Your task to perform on an android device: change the clock display to show seconds Image 0: 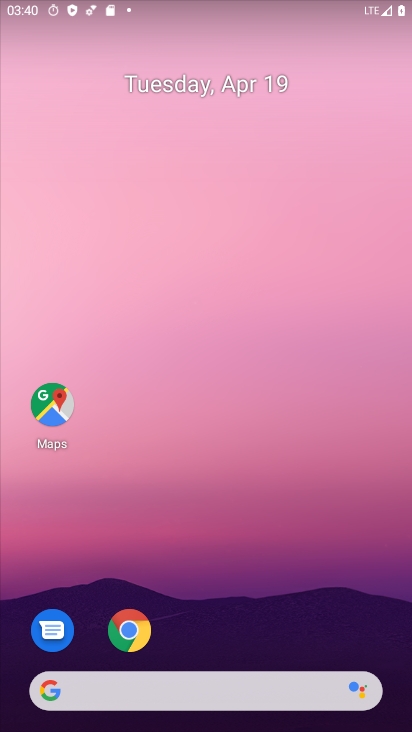
Step 0: drag from (265, 619) to (313, 87)
Your task to perform on an android device: change the clock display to show seconds Image 1: 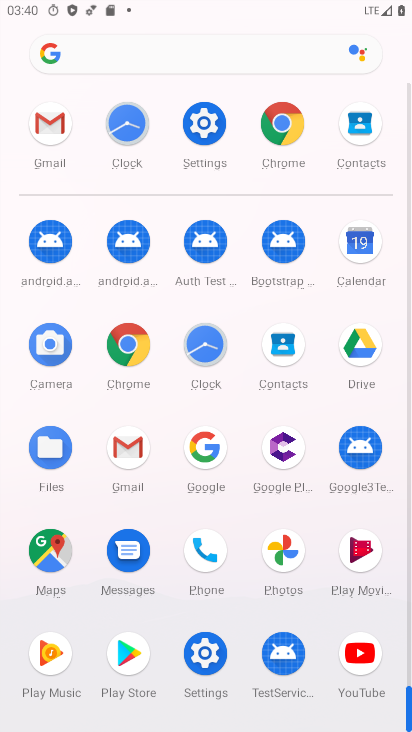
Step 1: click (211, 344)
Your task to perform on an android device: change the clock display to show seconds Image 2: 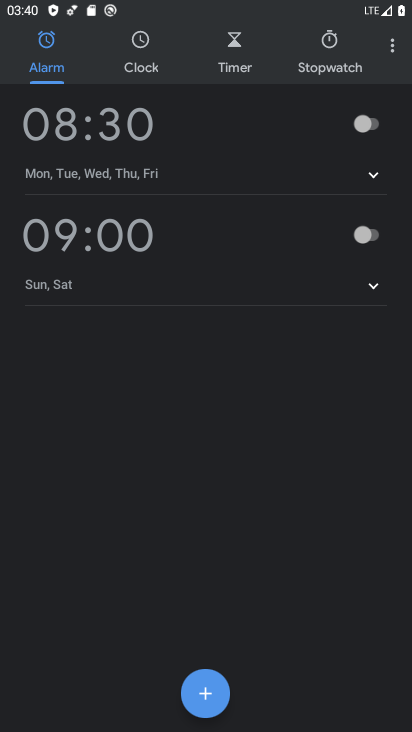
Step 2: click (389, 43)
Your task to perform on an android device: change the clock display to show seconds Image 3: 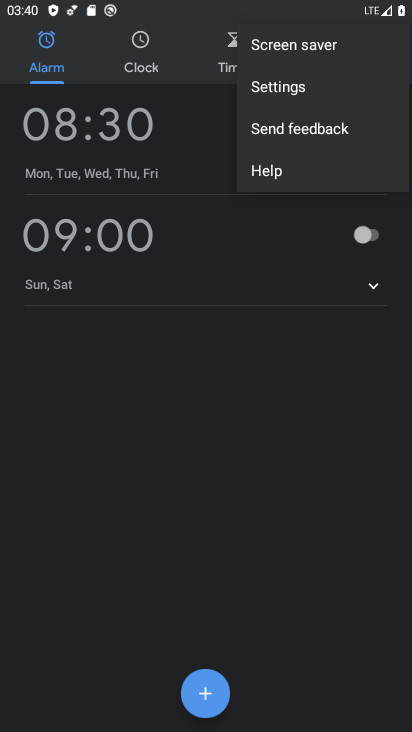
Step 3: click (288, 86)
Your task to perform on an android device: change the clock display to show seconds Image 4: 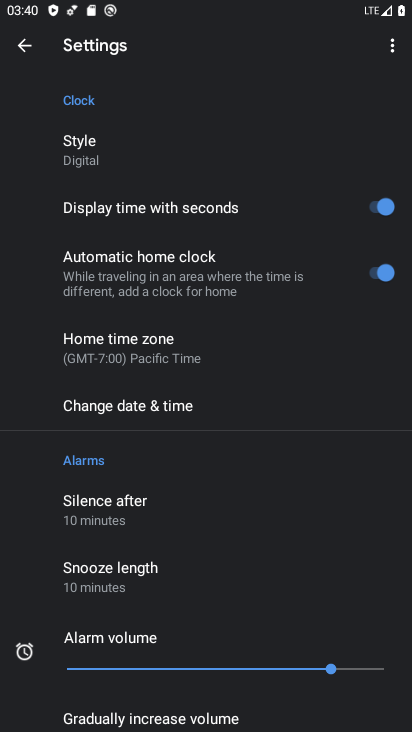
Step 4: task complete